Your task to perform on an android device: Open Google Maps and go to "Timeline" Image 0: 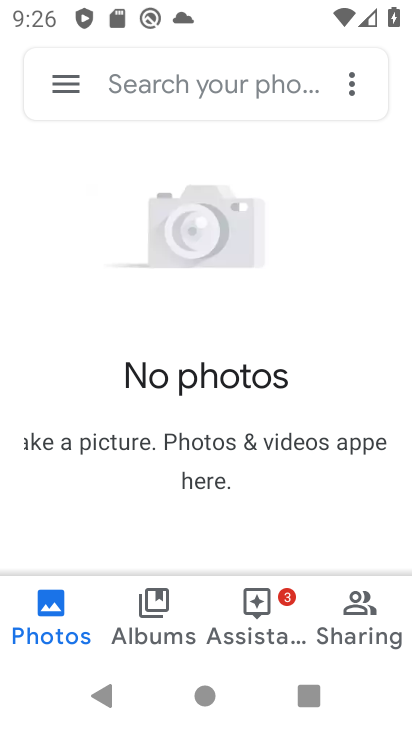
Step 0: press home button
Your task to perform on an android device: Open Google Maps and go to "Timeline" Image 1: 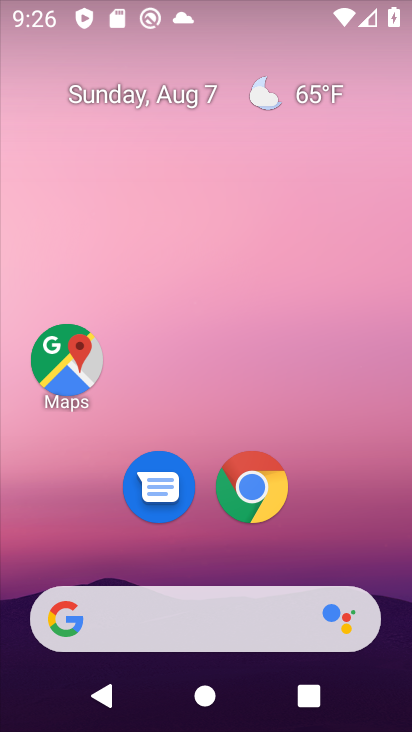
Step 1: click (60, 354)
Your task to perform on an android device: Open Google Maps and go to "Timeline" Image 2: 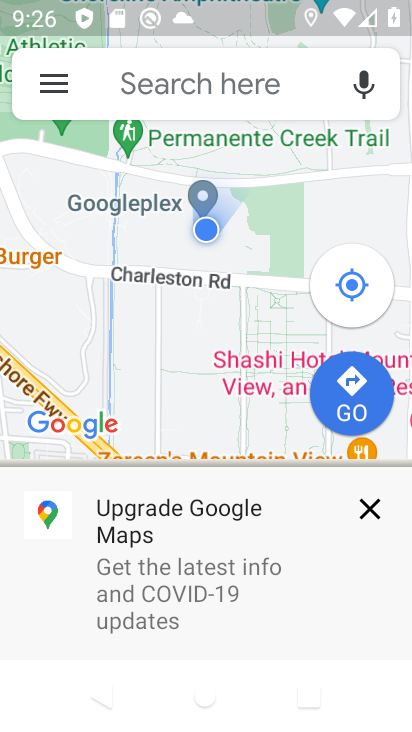
Step 2: click (45, 67)
Your task to perform on an android device: Open Google Maps and go to "Timeline" Image 3: 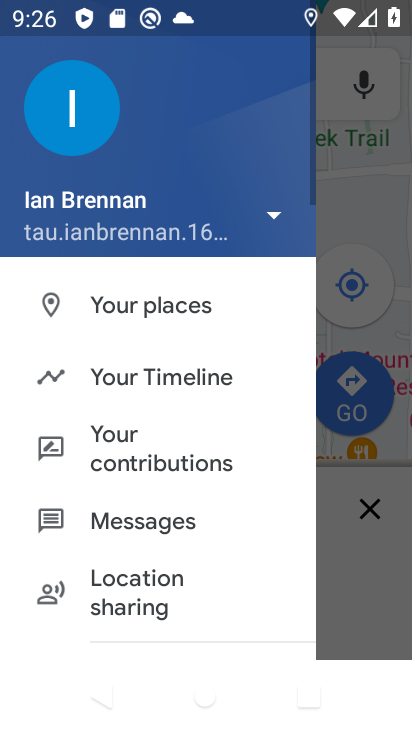
Step 3: click (126, 383)
Your task to perform on an android device: Open Google Maps and go to "Timeline" Image 4: 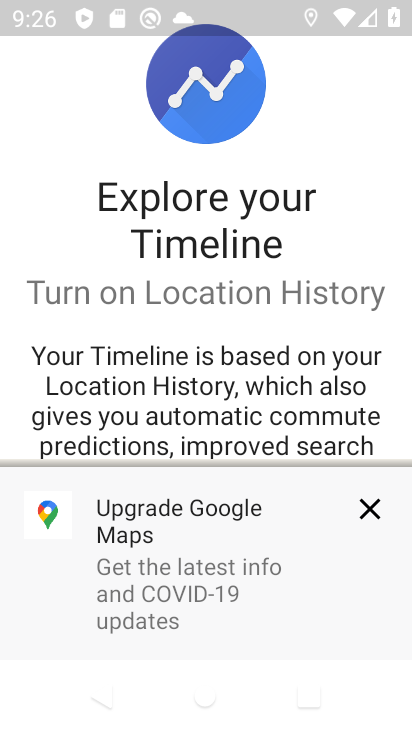
Step 4: drag from (351, 66) to (351, 30)
Your task to perform on an android device: Open Google Maps and go to "Timeline" Image 5: 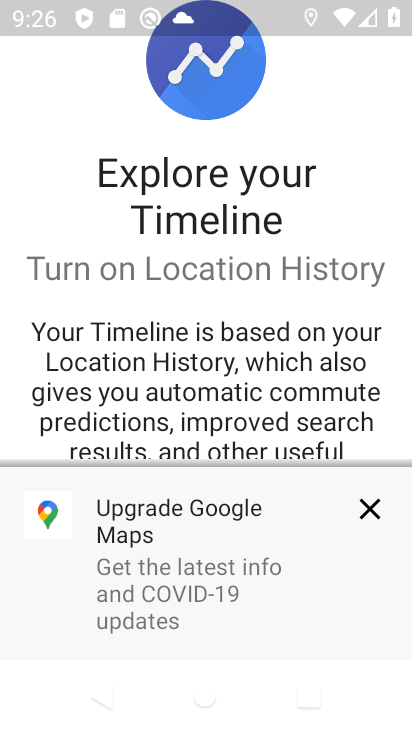
Step 5: drag from (323, 442) to (343, 120)
Your task to perform on an android device: Open Google Maps and go to "Timeline" Image 6: 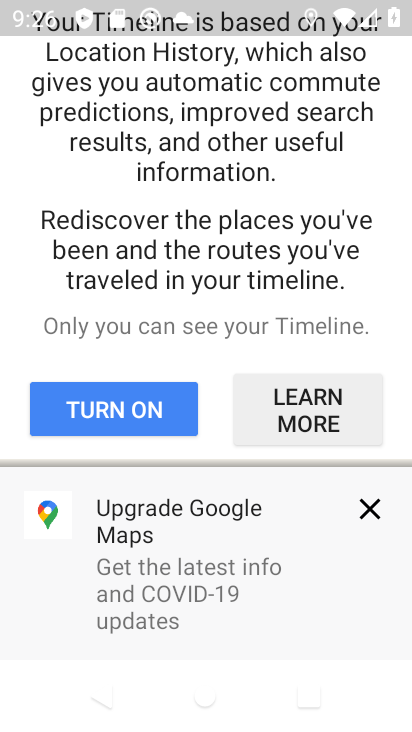
Step 6: click (90, 420)
Your task to perform on an android device: Open Google Maps and go to "Timeline" Image 7: 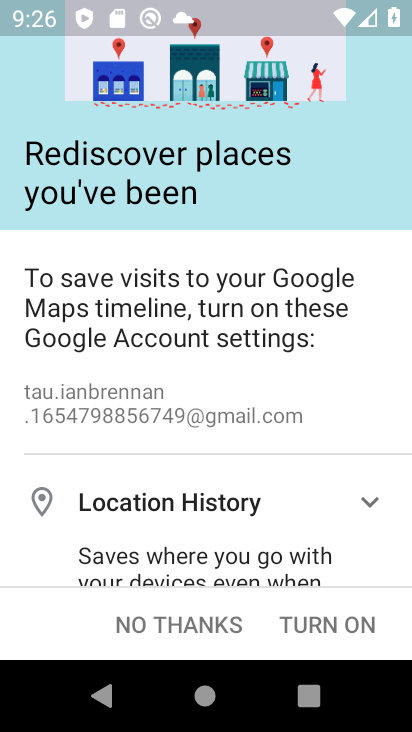
Step 7: task complete